Your task to perform on an android device: star an email in the gmail app Image 0: 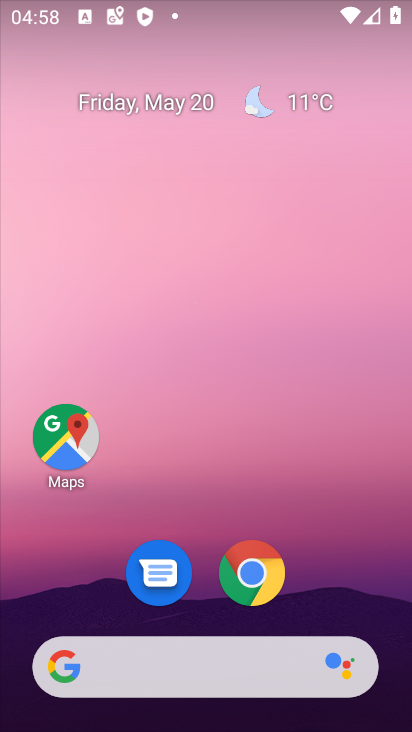
Step 0: drag from (392, 637) to (329, 183)
Your task to perform on an android device: star an email in the gmail app Image 1: 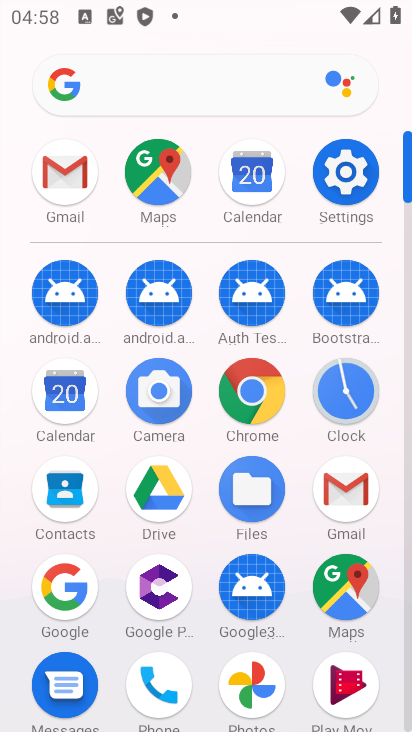
Step 1: click (407, 684)
Your task to perform on an android device: star an email in the gmail app Image 2: 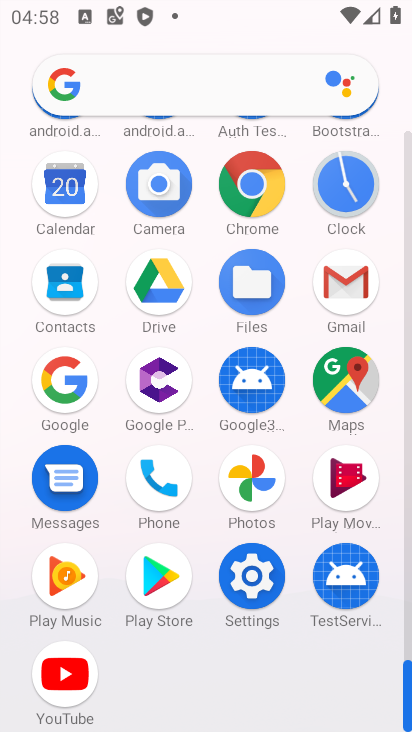
Step 2: click (344, 280)
Your task to perform on an android device: star an email in the gmail app Image 3: 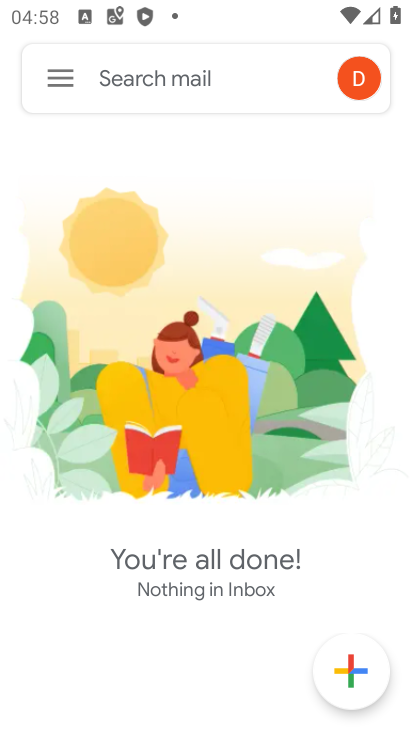
Step 3: click (59, 74)
Your task to perform on an android device: star an email in the gmail app Image 4: 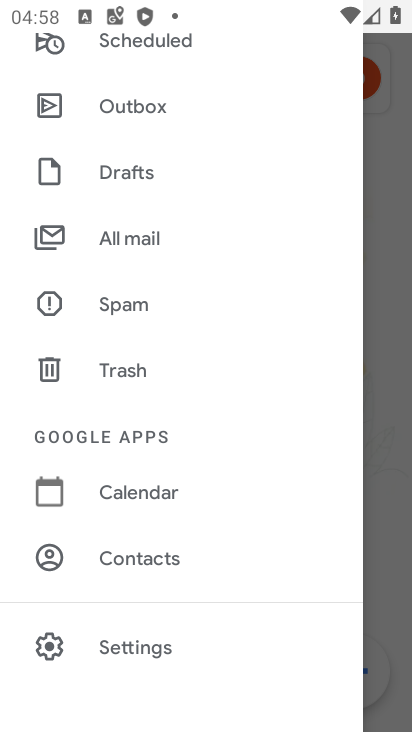
Step 4: click (121, 239)
Your task to perform on an android device: star an email in the gmail app Image 5: 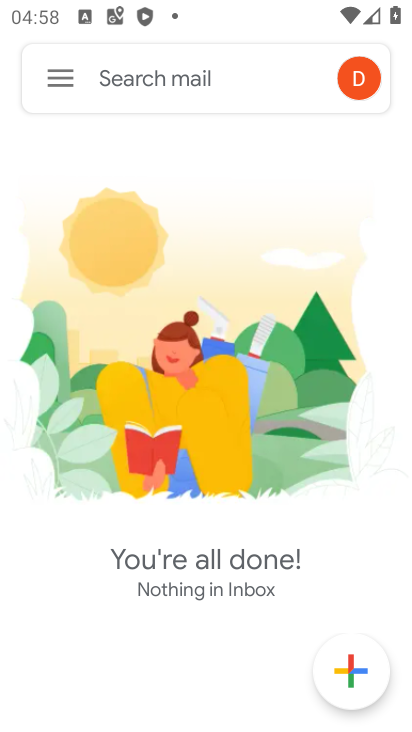
Step 5: task complete